Your task to perform on an android device: show emergency info Image 0: 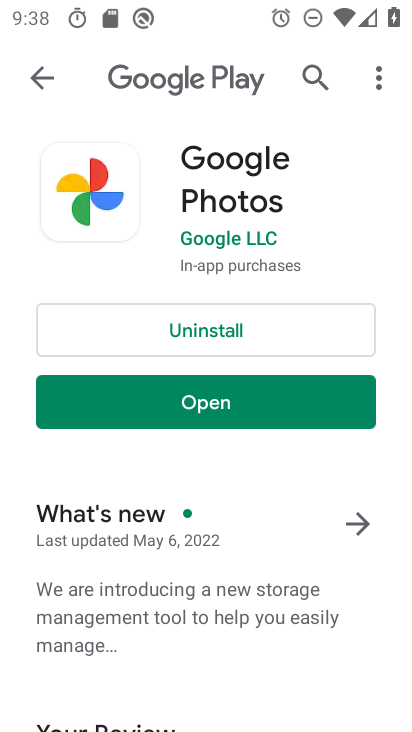
Step 0: press home button
Your task to perform on an android device: show emergency info Image 1: 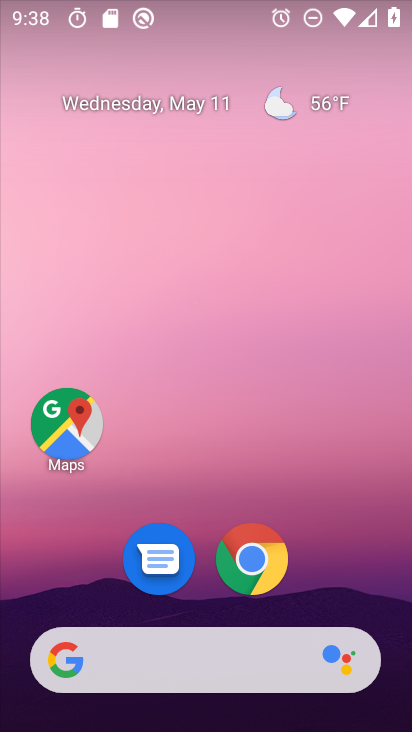
Step 1: drag from (314, 586) to (339, 71)
Your task to perform on an android device: show emergency info Image 2: 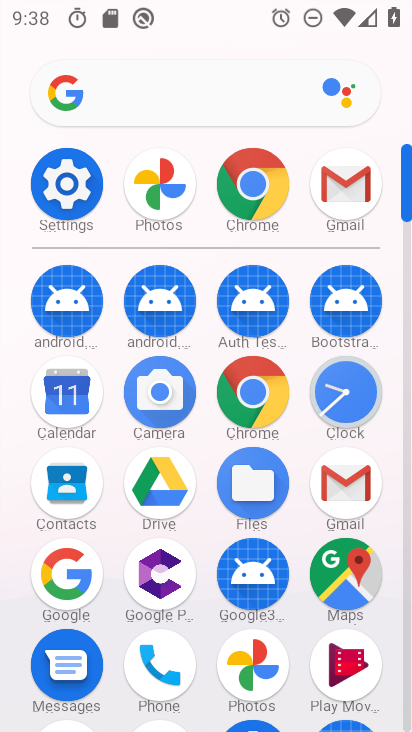
Step 2: click (57, 185)
Your task to perform on an android device: show emergency info Image 3: 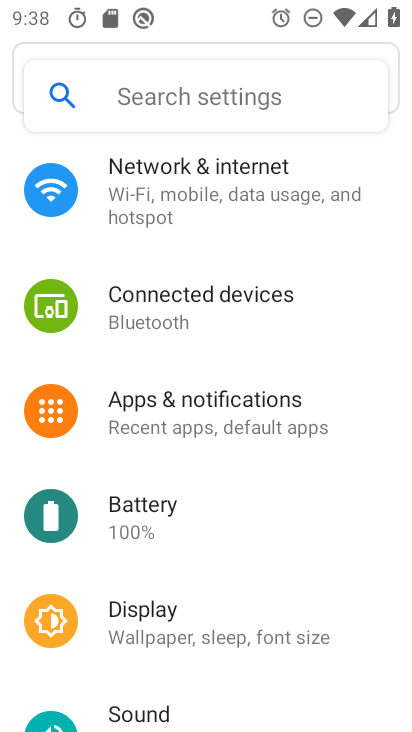
Step 3: drag from (208, 586) to (231, 204)
Your task to perform on an android device: show emergency info Image 4: 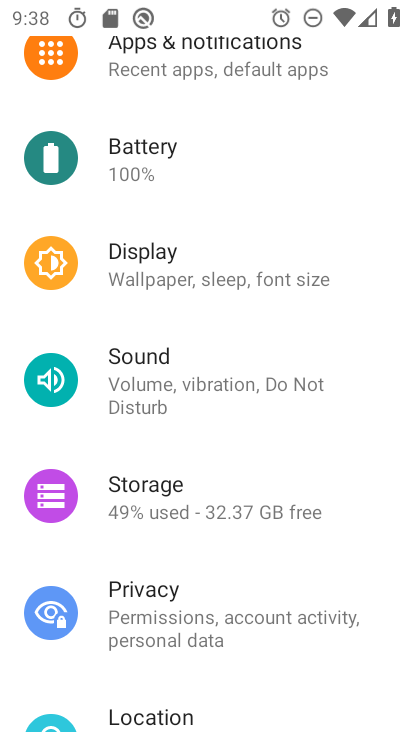
Step 4: drag from (274, 630) to (347, 266)
Your task to perform on an android device: show emergency info Image 5: 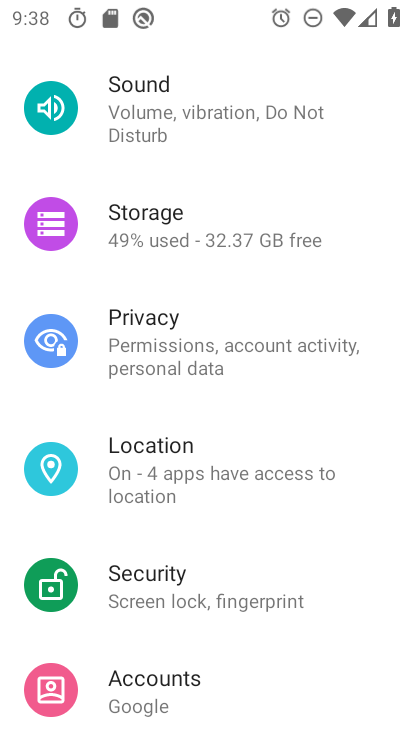
Step 5: drag from (289, 666) to (331, 270)
Your task to perform on an android device: show emergency info Image 6: 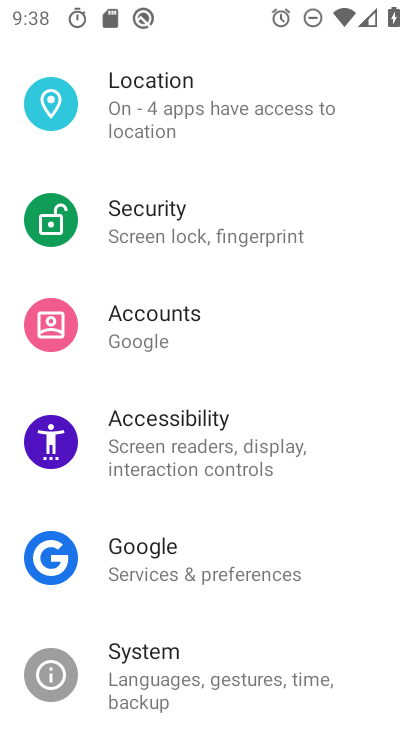
Step 6: drag from (300, 533) to (324, 291)
Your task to perform on an android device: show emergency info Image 7: 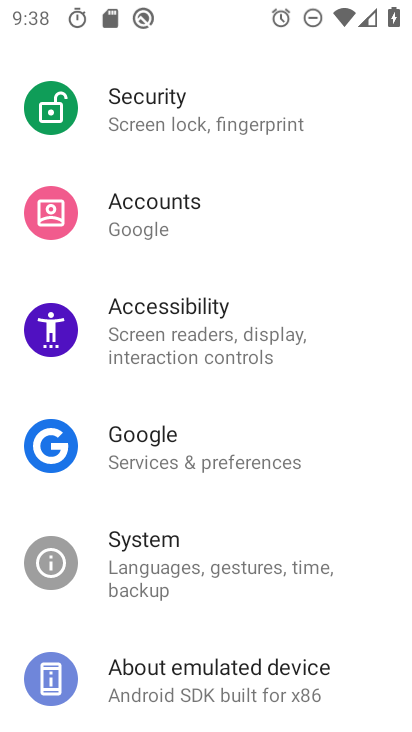
Step 7: click (250, 690)
Your task to perform on an android device: show emergency info Image 8: 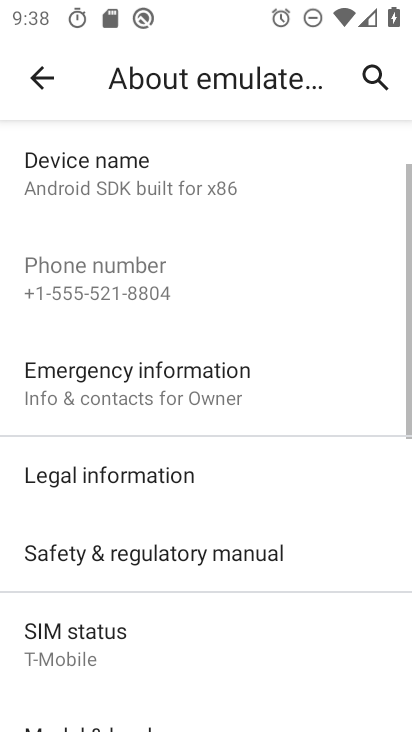
Step 8: click (202, 393)
Your task to perform on an android device: show emergency info Image 9: 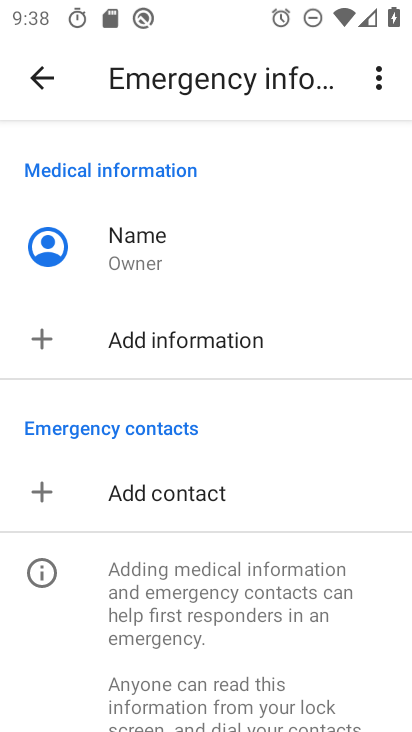
Step 9: task complete